Your task to perform on an android device: turn pop-ups off in chrome Image 0: 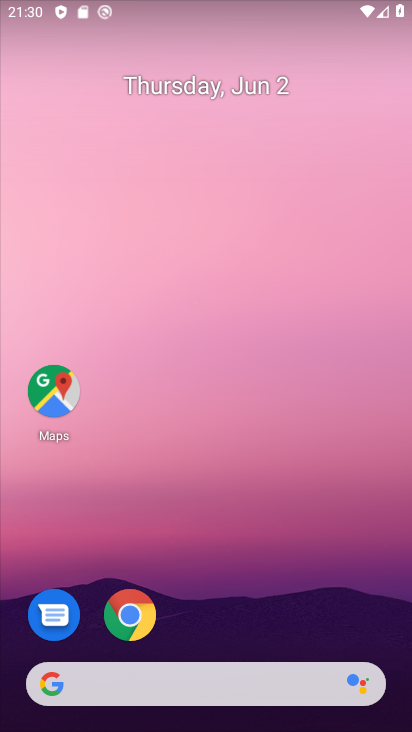
Step 0: drag from (211, 396) to (215, 232)
Your task to perform on an android device: turn pop-ups off in chrome Image 1: 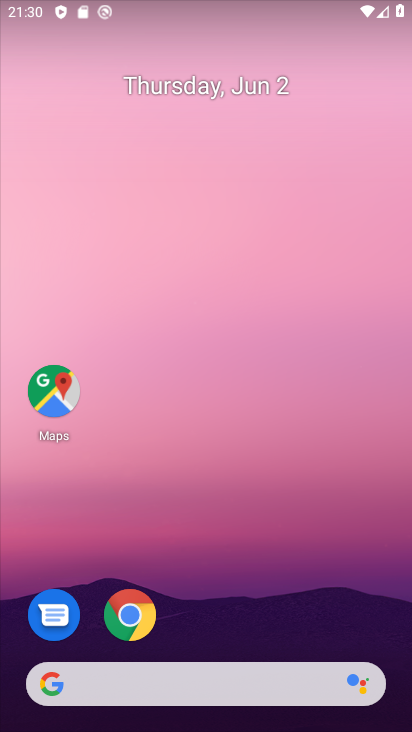
Step 1: drag from (214, 630) to (270, 138)
Your task to perform on an android device: turn pop-ups off in chrome Image 2: 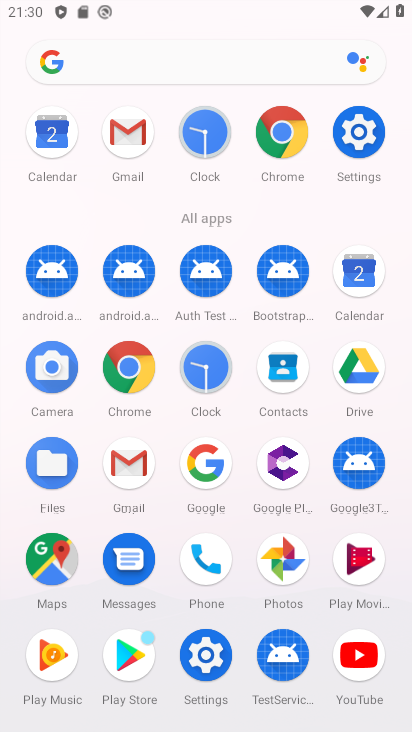
Step 2: click (282, 125)
Your task to perform on an android device: turn pop-ups off in chrome Image 3: 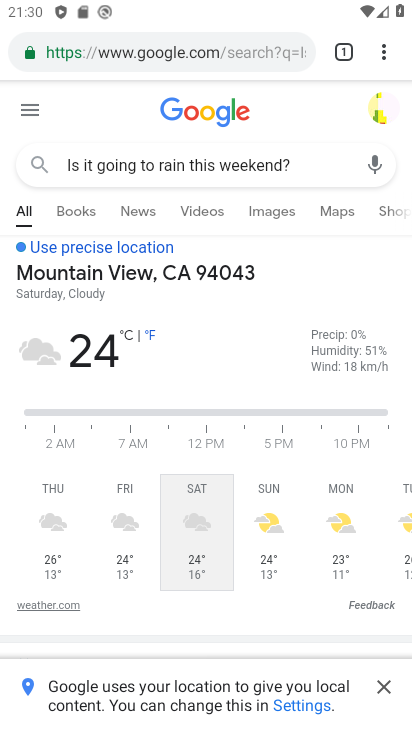
Step 3: click (384, 48)
Your task to perform on an android device: turn pop-ups off in chrome Image 4: 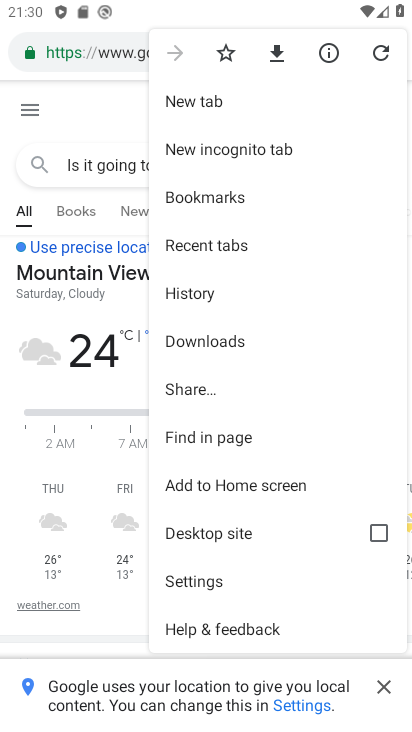
Step 4: click (210, 589)
Your task to perform on an android device: turn pop-ups off in chrome Image 5: 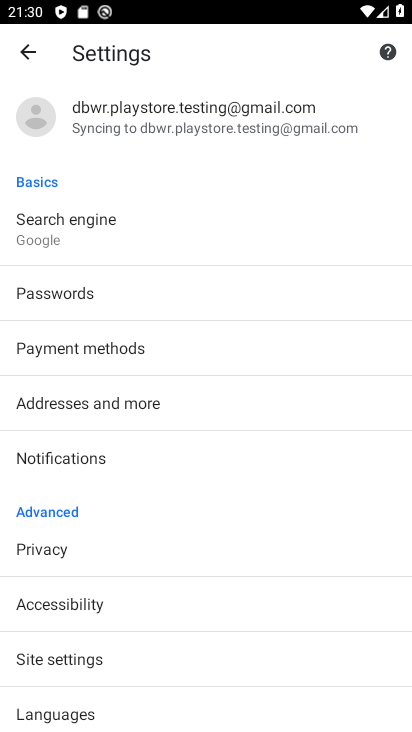
Step 5: click (69, 653)
Your task to perform on an android device: turn pop-ups off in chrome Image 6: 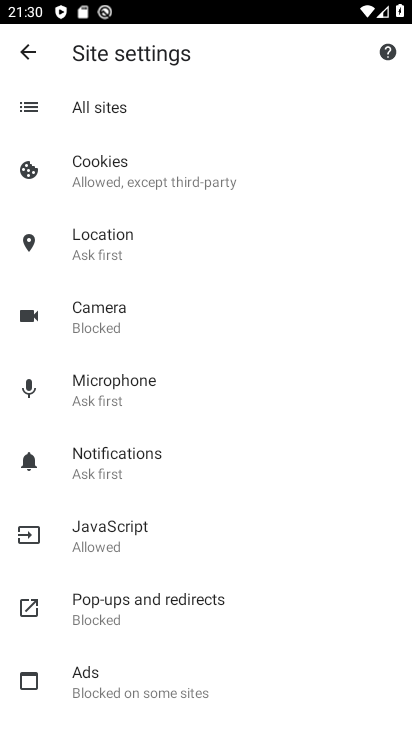
Step 6: click (129, 605)
Your task to perform on an android device: turn pop-ups off in chrome Image 7: 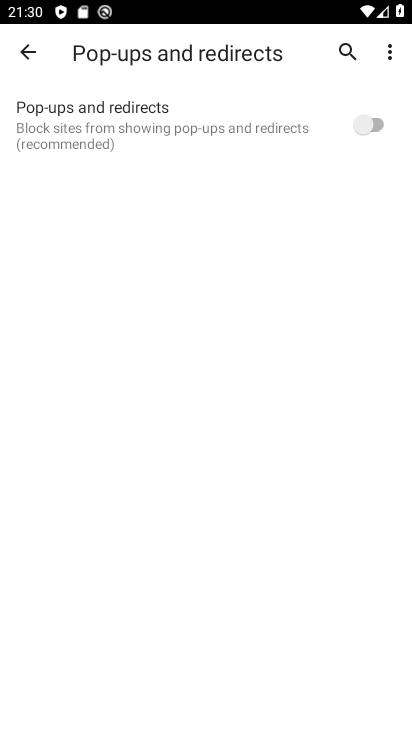
Step 7: task complete